Your task to perform on an android device: Open Maps and search for coffee Image 0: 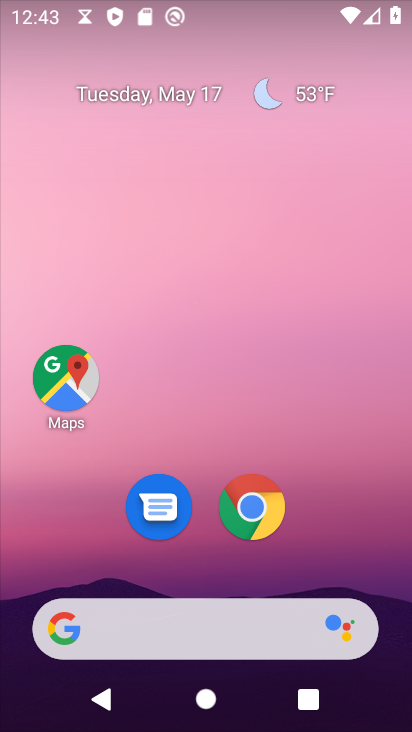
Step 0: drag from (219, 580) to (239, 136)
Your task to perform on an android device: Open Maps and search for coffee Image 1: 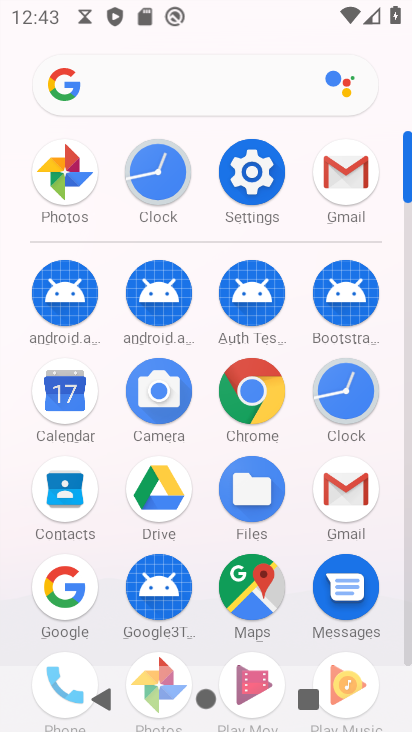
Step 1: click (252, 587)
Your task to perform on an android device: Open Maps and search for coffee Image 2: 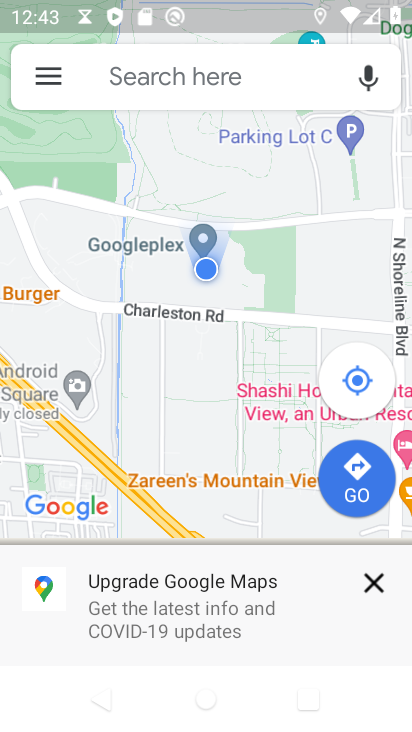
Step 2: click (156, 77)
Your task to perform on an android device: Open Maps and search for coffee Image 3: 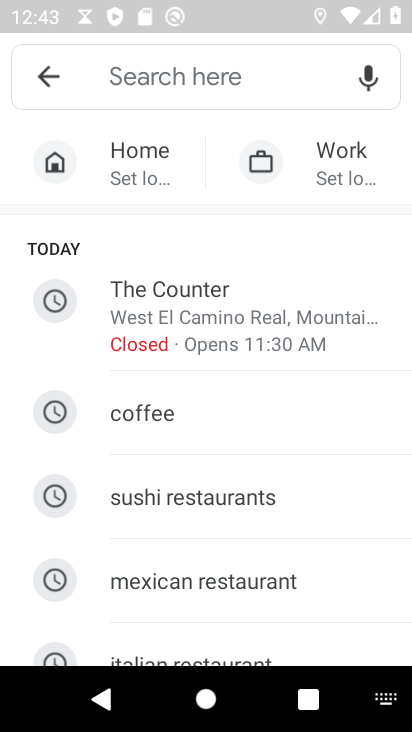
Step 3: type "coffee"
Your task to perform on an android device: Open Maps and search for coffee Image 4: 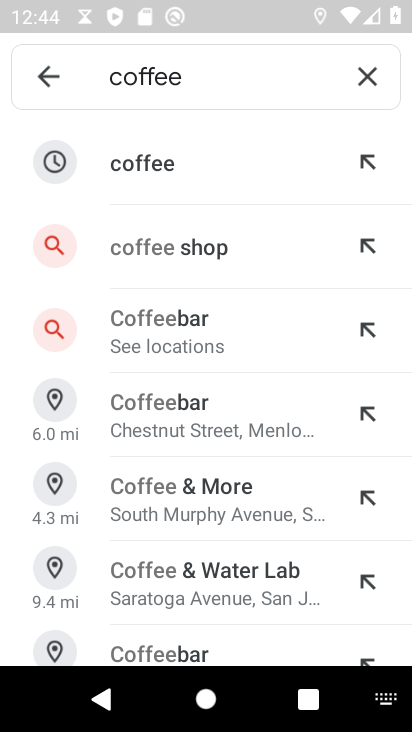
Step 4: click (155, 166)
Your task to perform on an android device: Open Maps and search for coffee Image 5: 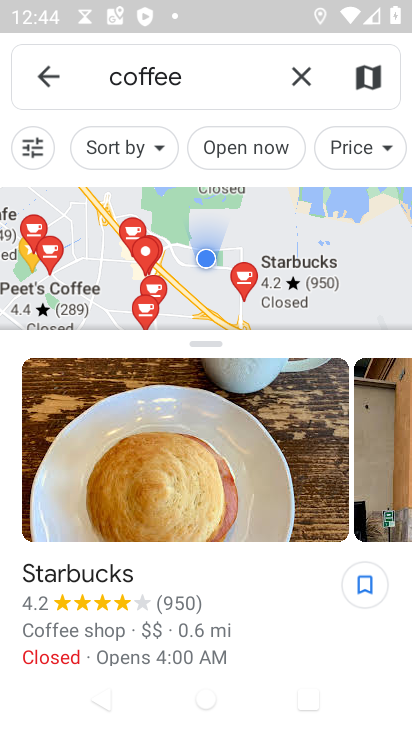
Step 5: task complete